Your task to perform on an android device: Clear the cart on bestbuy. Add logitech g pro to the cart on bestbuy, then select checkout. Image 0: 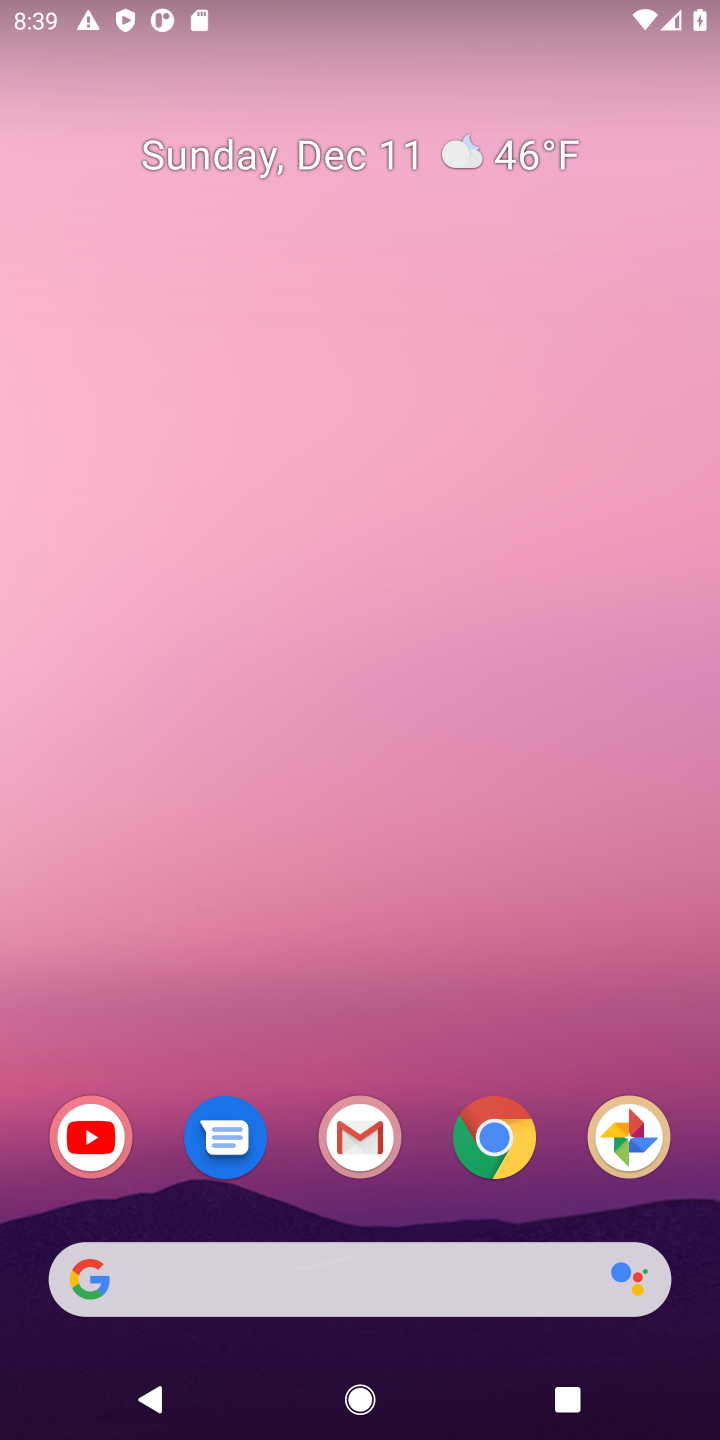
Step 0: click (496, 1134)
Your task to perform on an android device: Clear the cart on bestbuy. Add logitech g pro to the cart on bestbuy, then select checkout. Image 1: 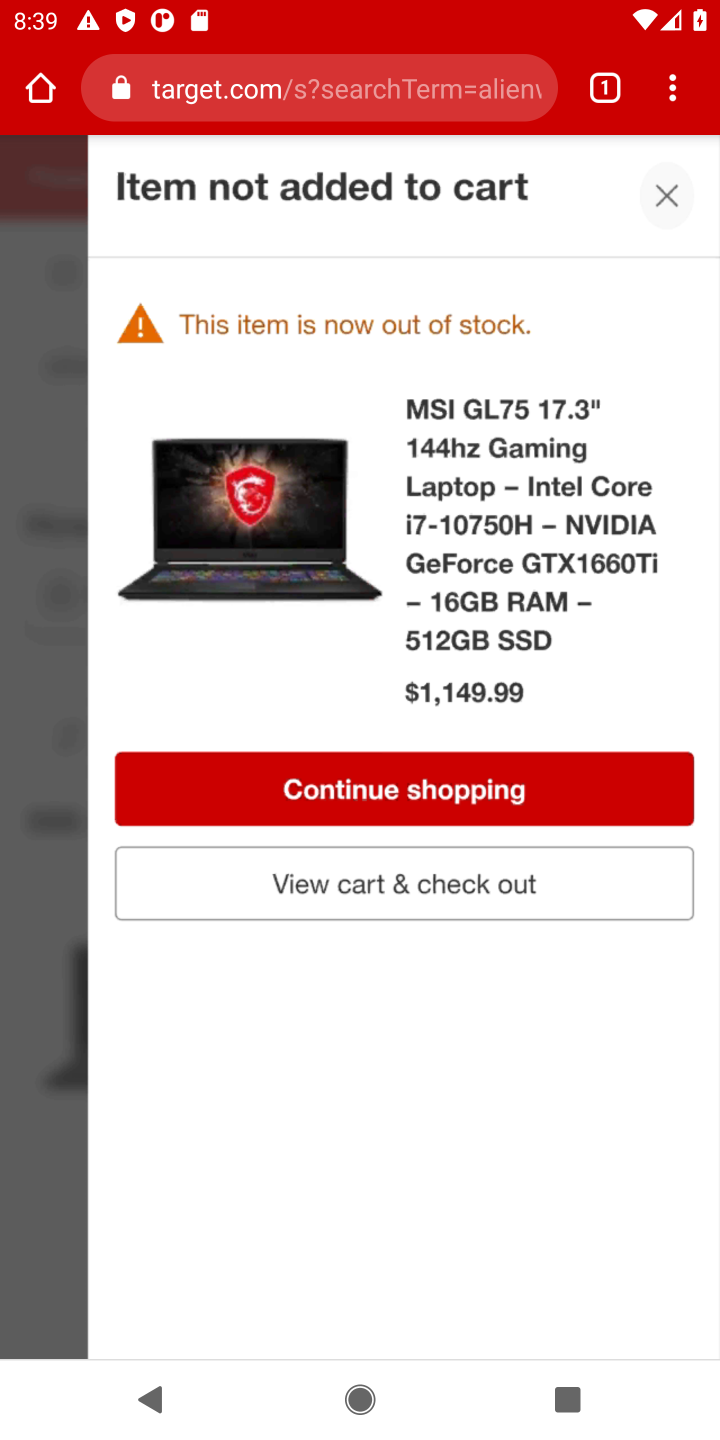
Step 1: click (348, 83)
Your task to perform on an android device: Clear the cart on bestbuy. Add logitech g pro to the cart on bestbuy, then select checkout. Image 2: 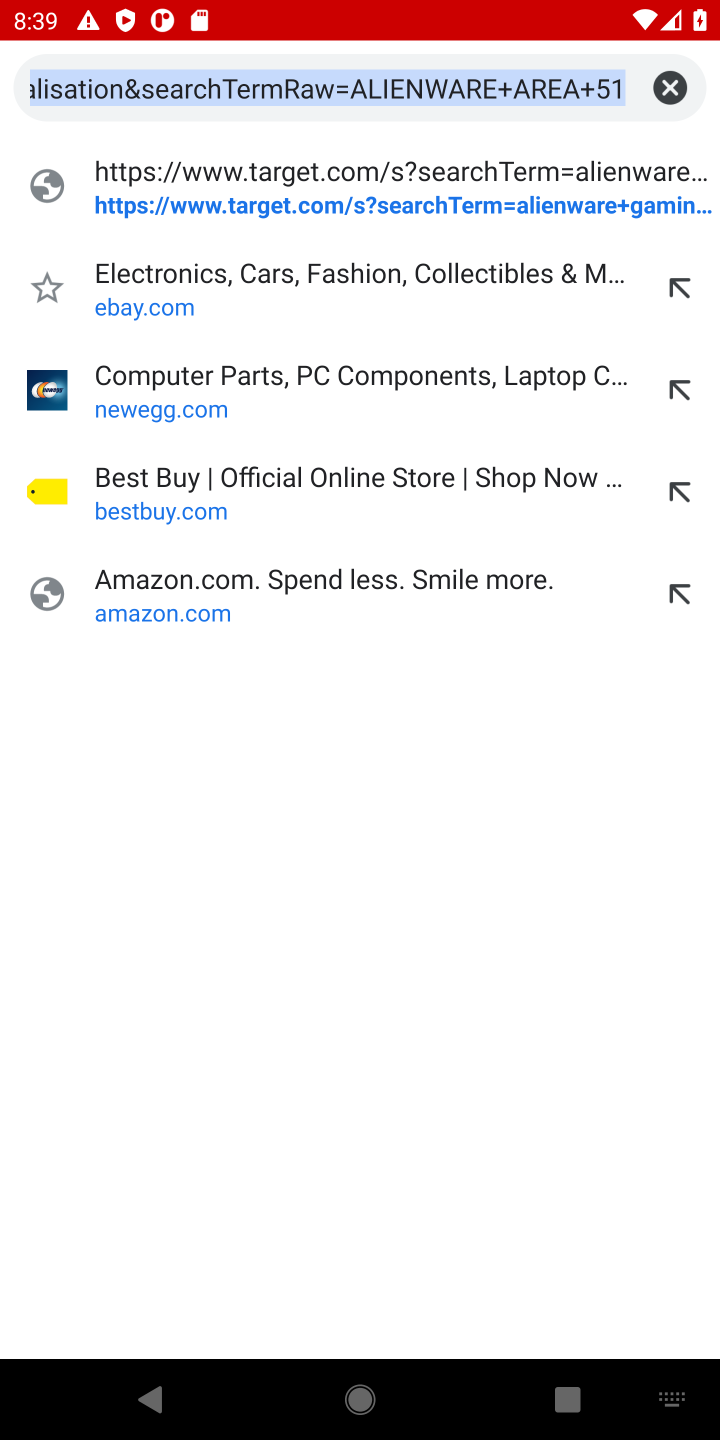
Step 2: click (408, 506)
Your task to perform on an android device: Clear the cart on bestbuy. Add logitech g pro to the cart on bestbuy, then select checkout. Image 3: 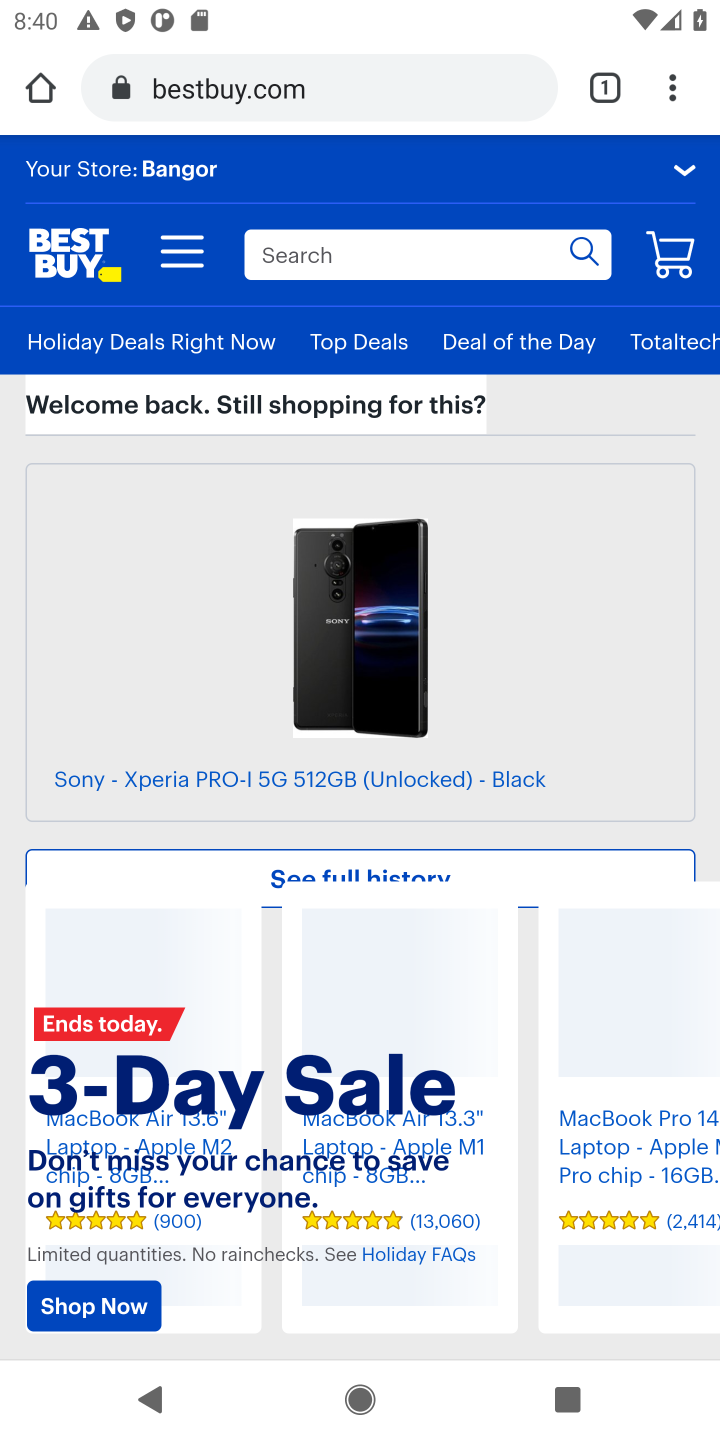
Step 3: click (471, 267)
Your task to perform on an android device: Clear the cart on bestbuy. Add logitech g pro to the cart on bestbuy, then select checkout. Image 4: 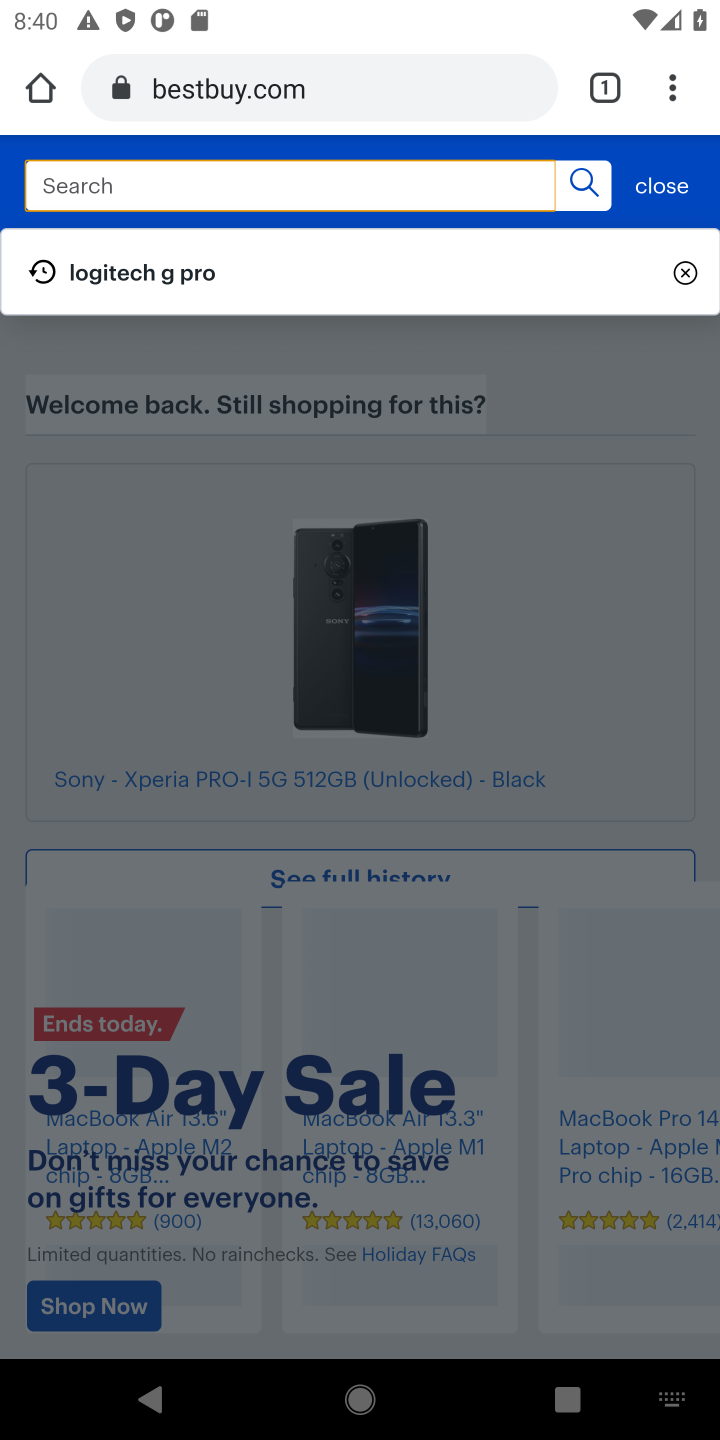
Step 4: type "logitech g pro"
Your task to perform on an android device: Clear the cart on bestbuy. Add logitech g pro to the cart on bestbuy, then select checkout. Image 5: 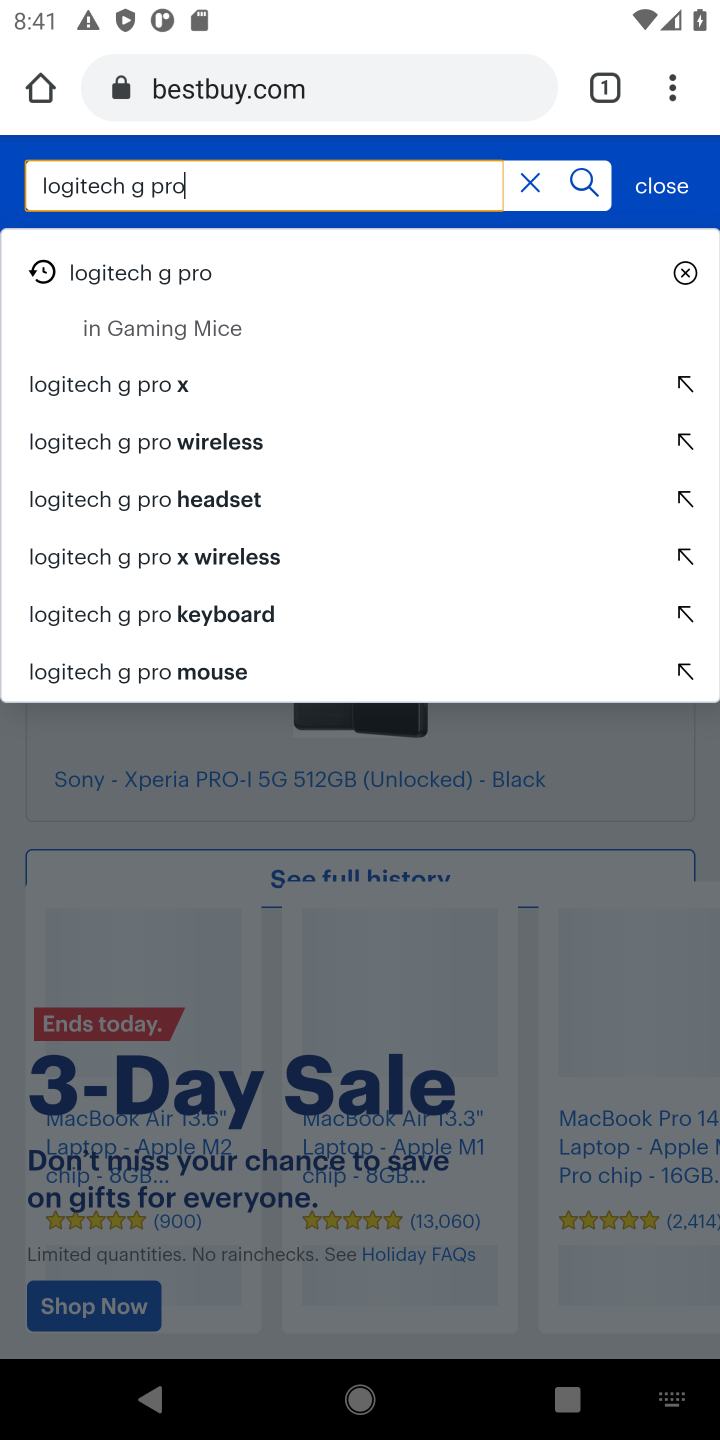
Step 5: click (236, 283)
Your task to perform on an android device: Clear the cart on bestbuy. Add logitech g pro to the cart on bestbuy, then select checkout. Image 6: 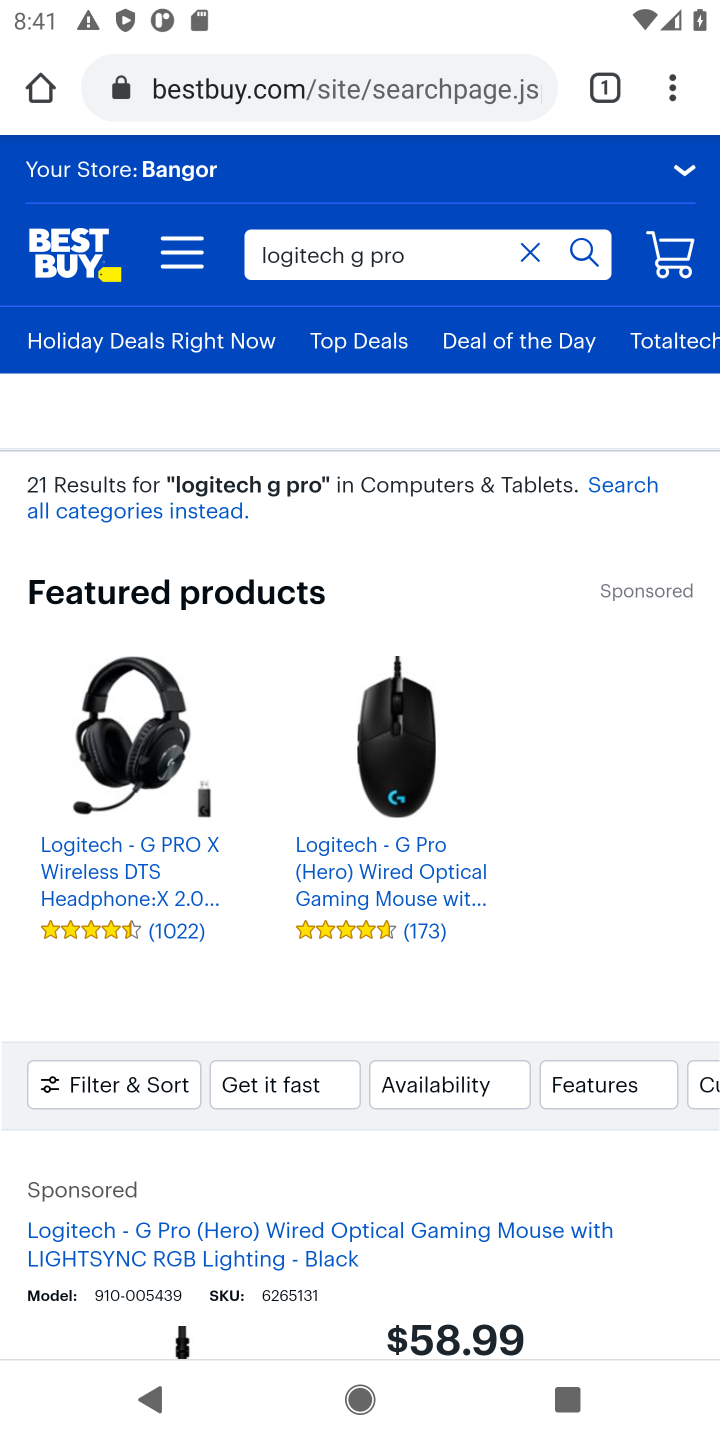
Step 6: drag from (528, 1269) to (427, 332)
Your task to perform on an android device: Clear the cart on bestbuy. Add logitech g pro to the cart on bestbuy, then select checkout. Image 7: 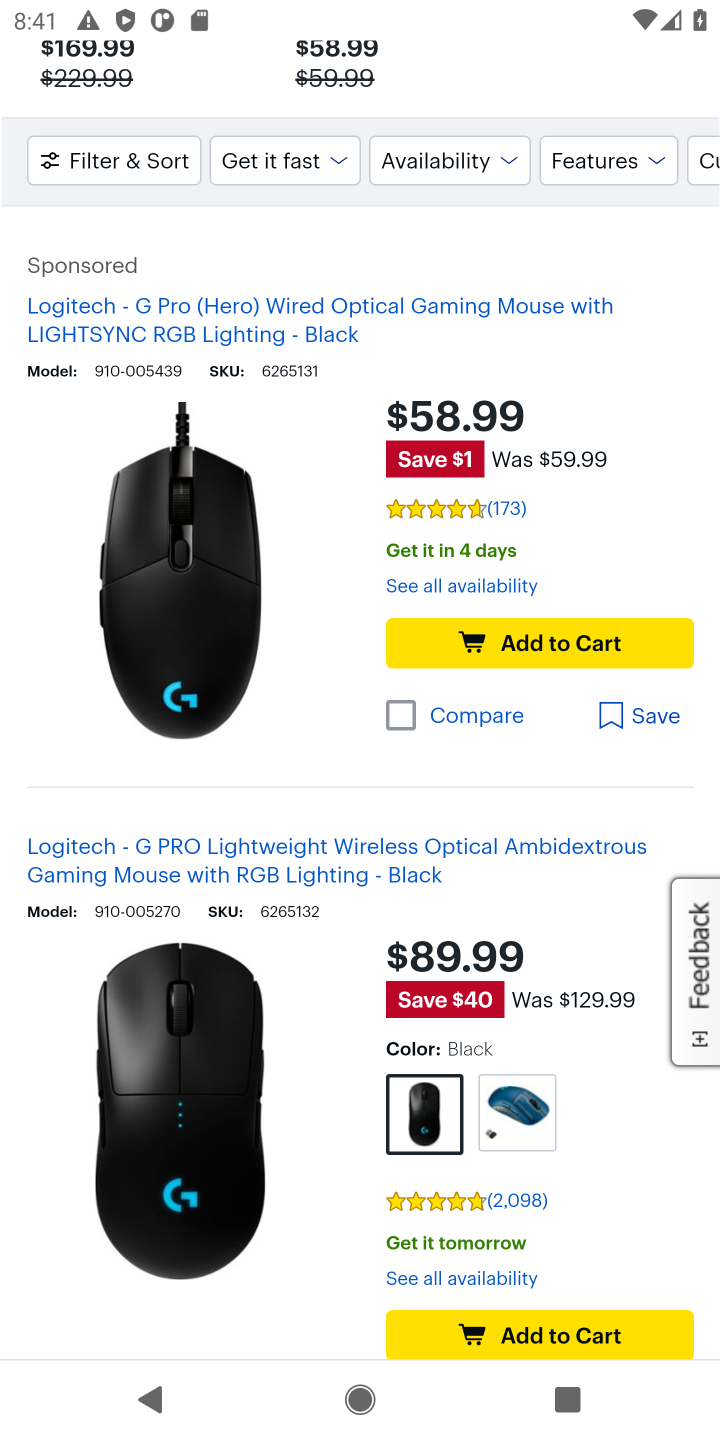
Step 7: click (549, 642)
Your task to perform on an android device: Clear the cart on bestbuy. Add logitech g pro to the cart on bestbuy, then select checkout. Image 8: 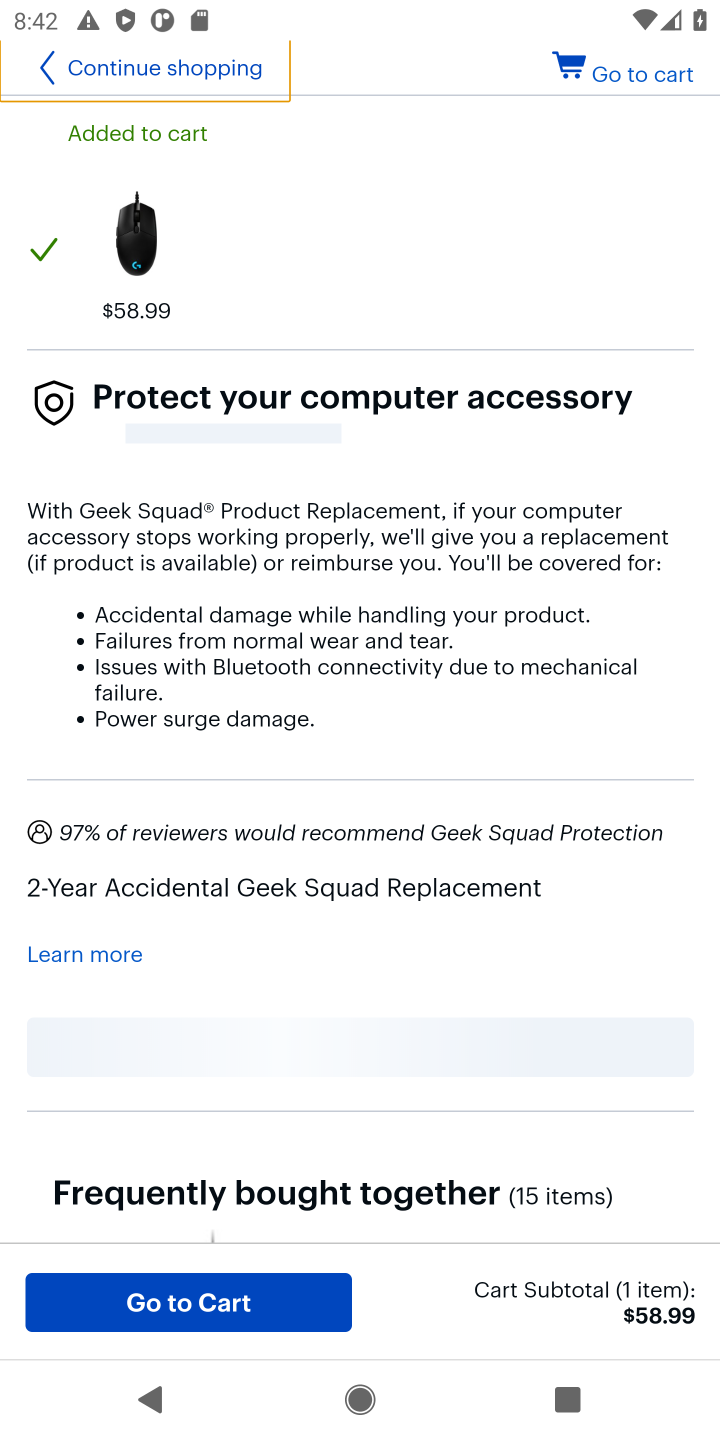
Step 8: click (235, 1309)
Your task to perform on an android device: Clear the cart on bestbuy. Add logitech g pro to the cart on bestbuy, then select checkout. Image 9: 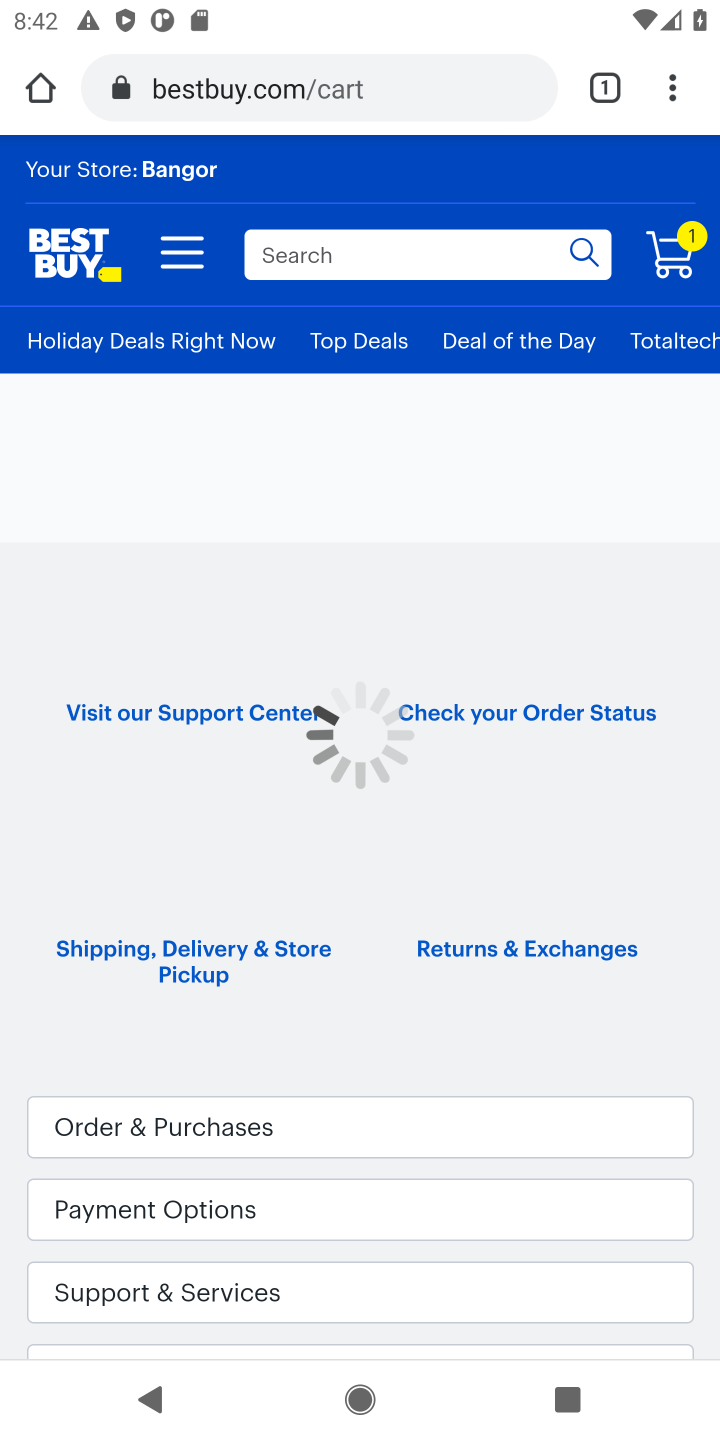
Step 9: click (676, 246)
Your task to perform on an android device: Clear the cart on bestbuy. Add logitech g pro to the cart on bestbuy, then select checkout. Image 10: 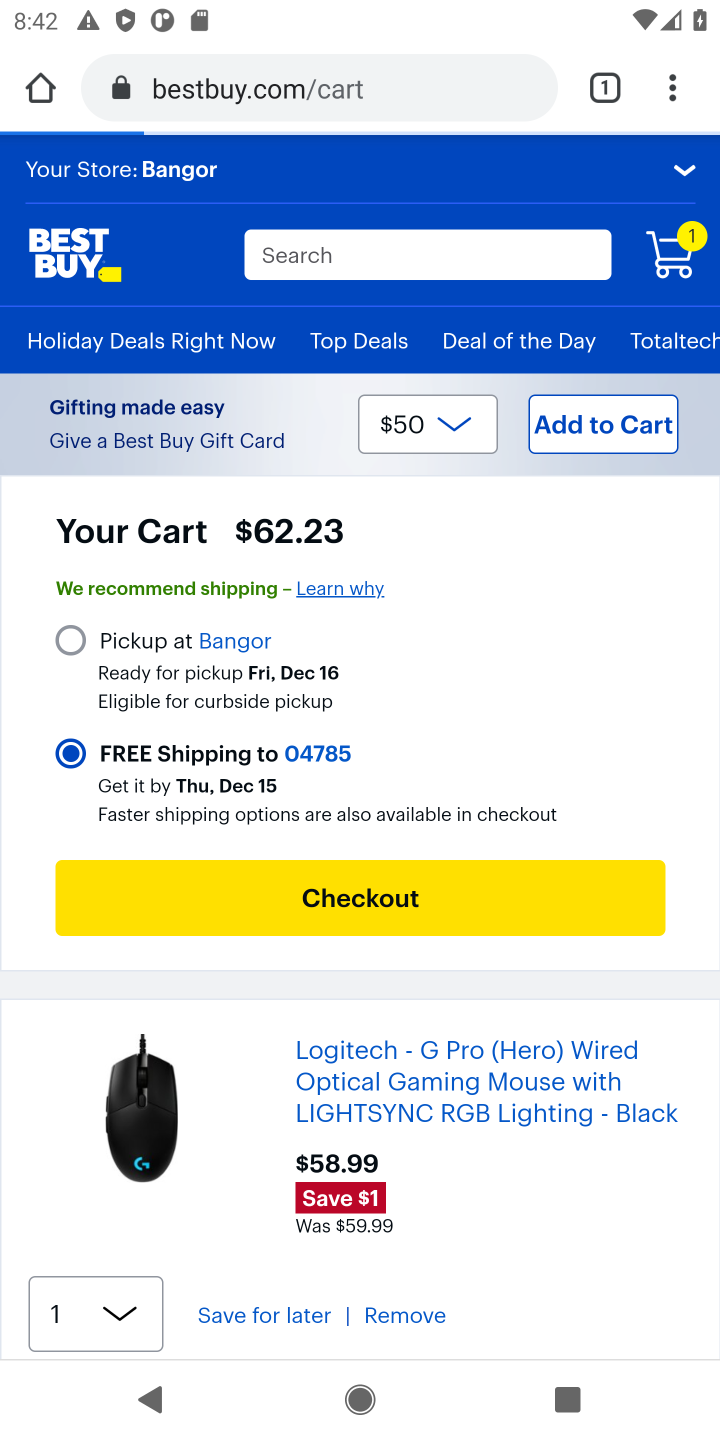
Step 10: click (437, 905)
Your task to perform on an android device: Clear the cart on bestbuy. Add logitech g pro to the cart on bestbuy, then select checkout. Image 11: 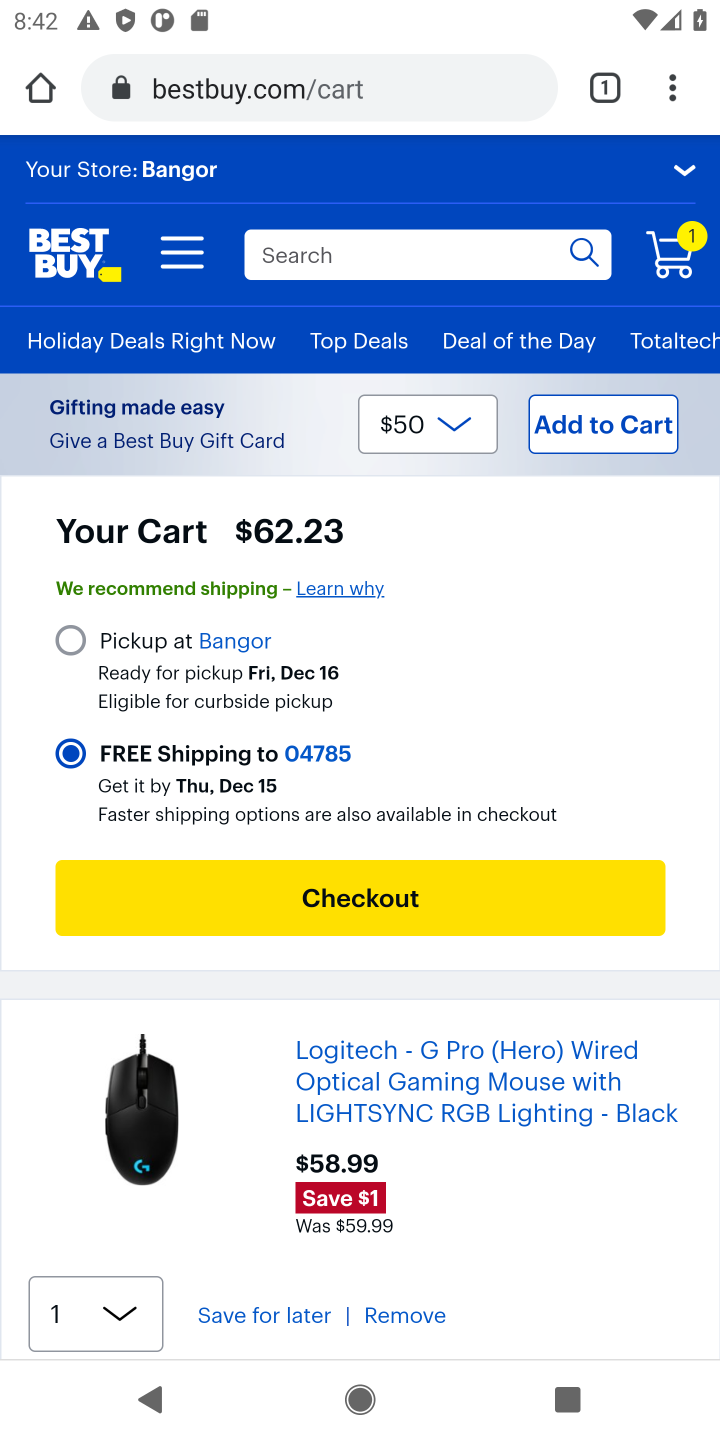
Step 11: click (372, 900)
Your task to perform on an android device: Clear the cart on bestbuy. Add logitech g pro to the cart on bestbuy, then select checkout. Image 12: 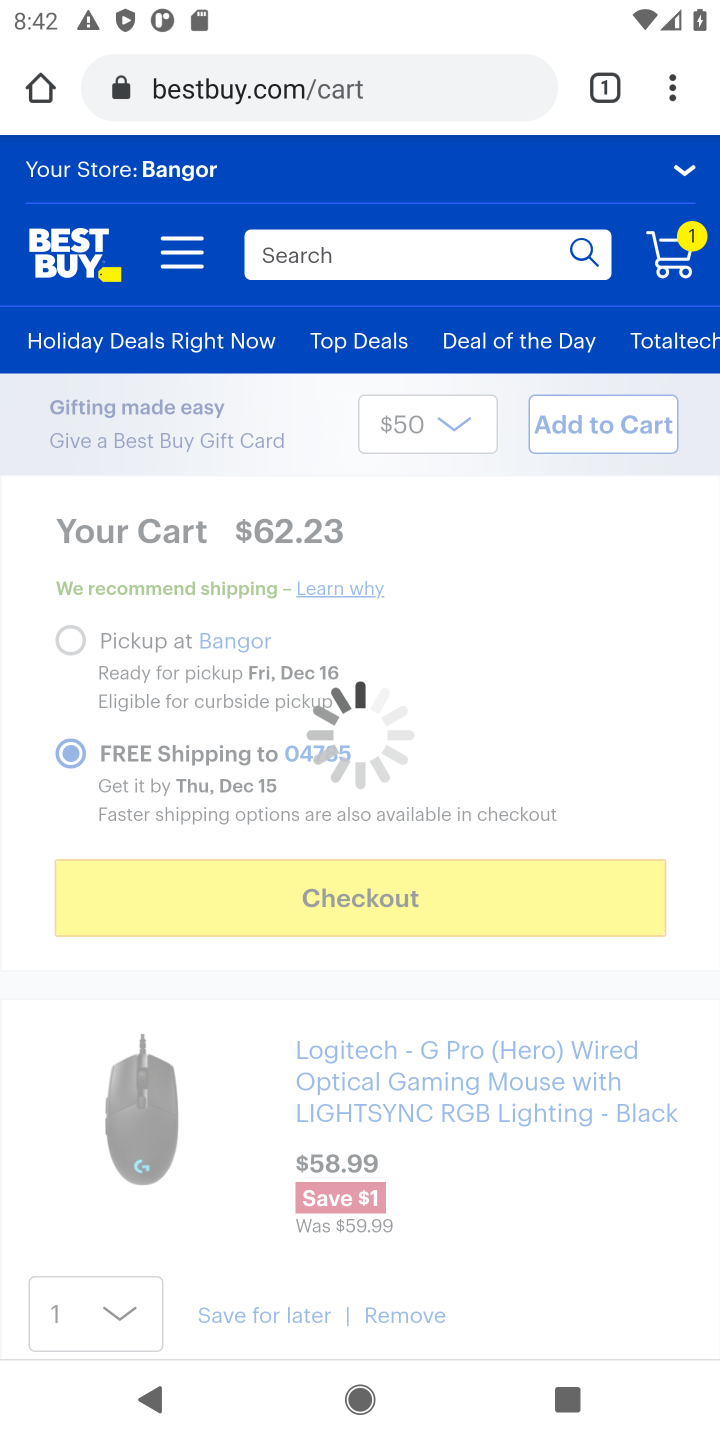
Step 12: task complete